Your task to perform on an android device: Open CNN.com Image 0: 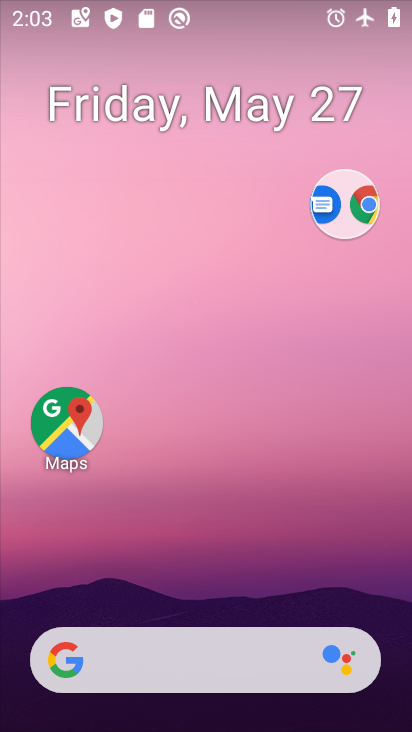
Step 0: drag from (206, 644) to (233, 298)
Your task to perform on an android device: Open CNN.com Image 1: 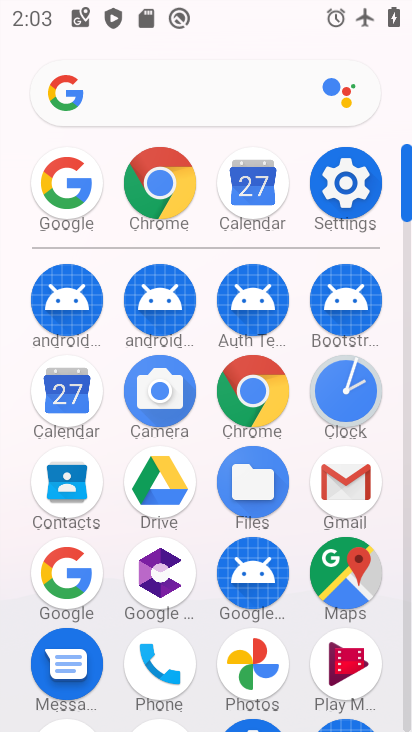
Step 1: click (182, 213)
Your task to perform on an android device: Open CNN.com Image 2: 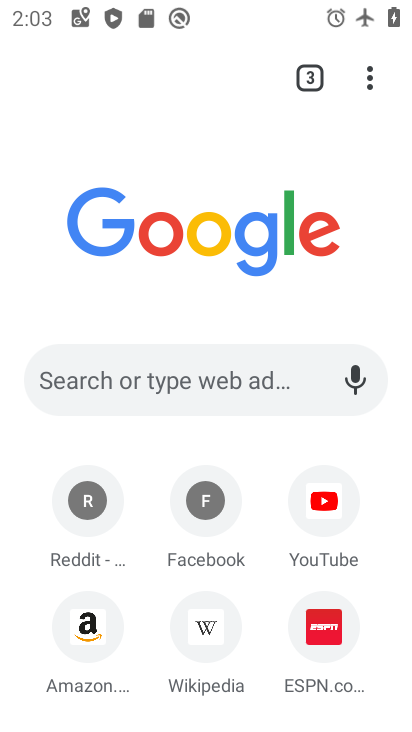
Step 2: click (169, 387)
Your task to perform on an android device: Open CNN.com Image 3: 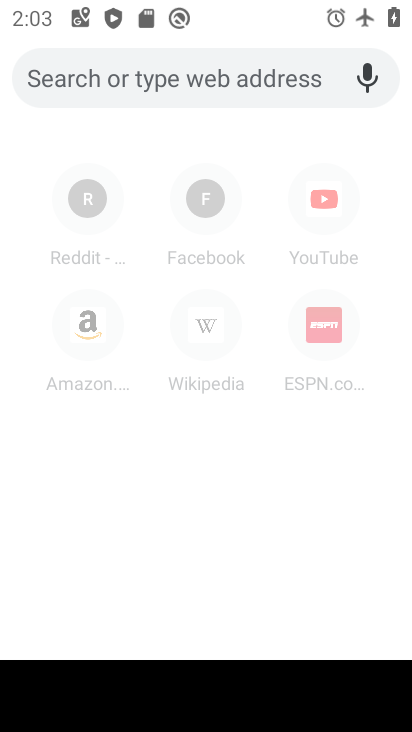
Step 3: type "cnn"
Your task to perform on an android device: Open CNN.com Image 4: 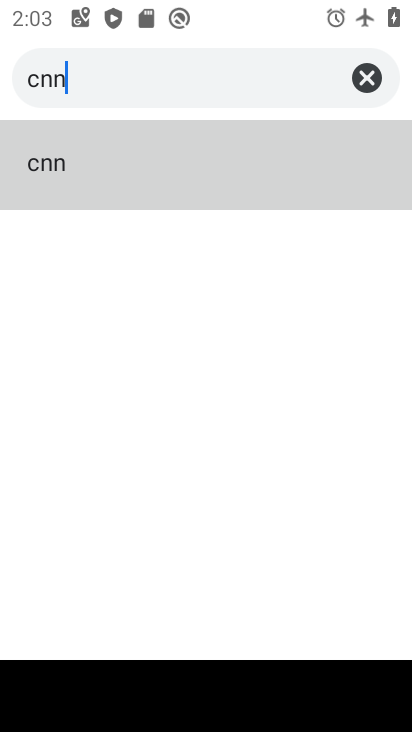
Step 4: click (94, 169)
Your task to perform on an android device: Open CNN.com Image 5: 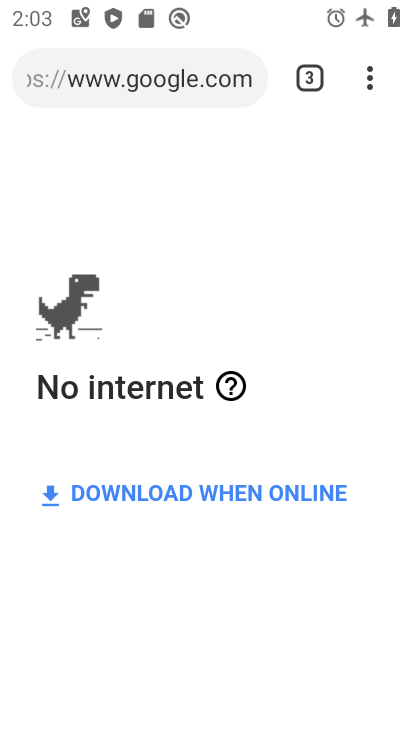
Step 5: task complete